Your task to perform on an android device: turn on notifications settings in the gmail app Image 0: 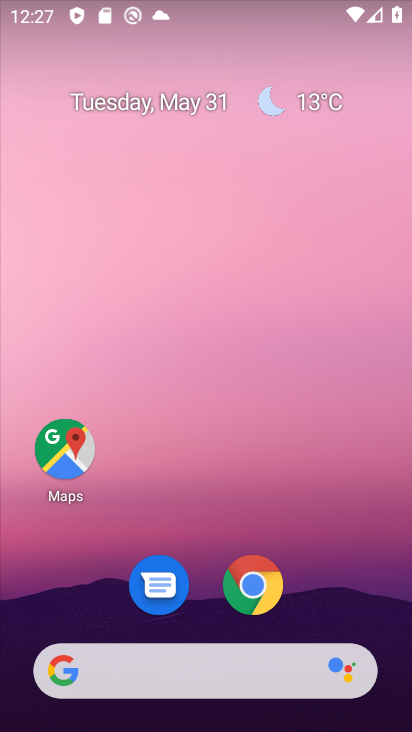
Step 0: drag from (246, 470) to (292, 19)
Your task to perform on an android device: turn on notifications settings in the gmail app Image 1: 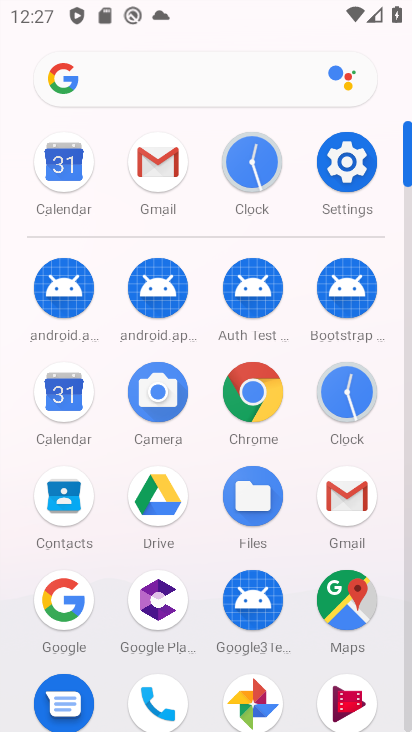
Step 1: click (169, 163)
Your task to perform on an android device: turn on notifications settings in the gmail app Image 2: 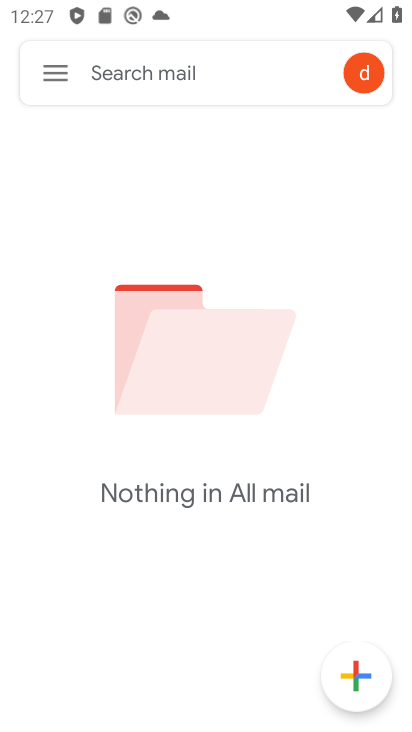
Step 2: click (56, 72)
Your task to perform on an android device: turn on notifications settings in the gmail app Image 3: 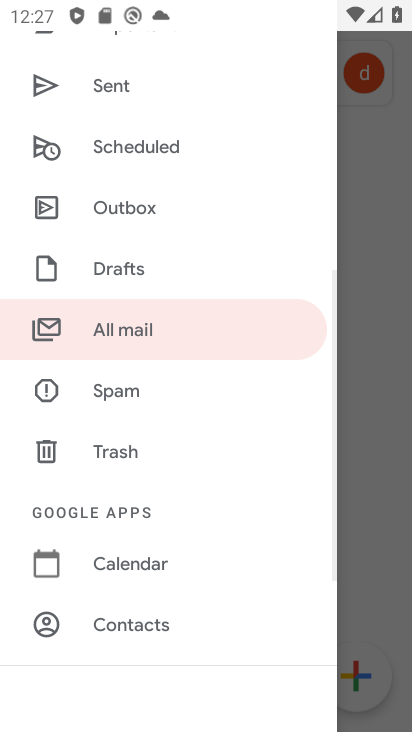
Step 3: drag from (150, 559) to (154, 394)
Your task to perform on an android device: turn on notifications settings in the gmail app Image 4: 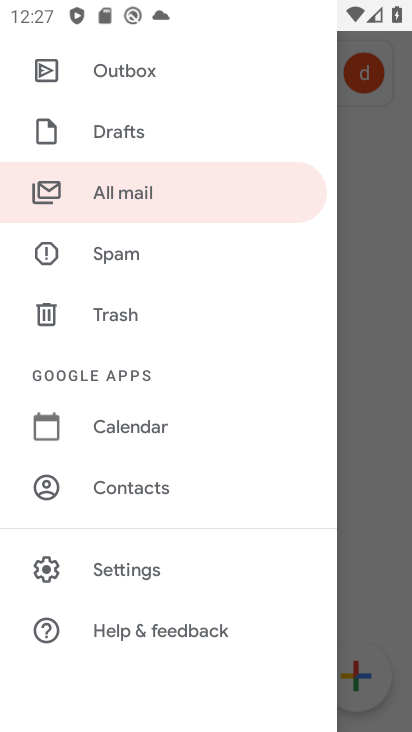
Step 4: click (140, 578)
Your task to perform on an android device: turn on notifications settings in the gmail app Image 5: 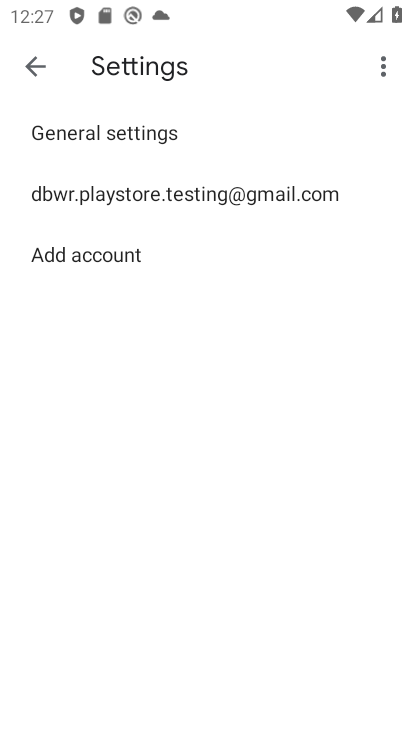
Step 5: click (164, 130)
Your task to perform on an android device: turn on notifications settings in the gmail app Image 6: 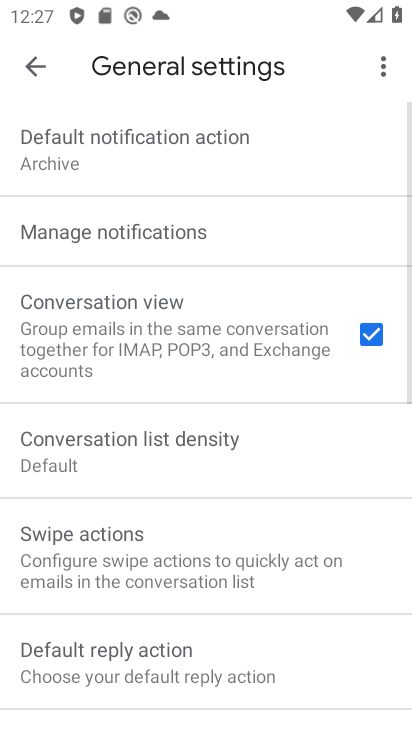
Step 6: click (240, 224)
Your task to perform on an android device: turn on notifications settings in the gmail app Image 7: 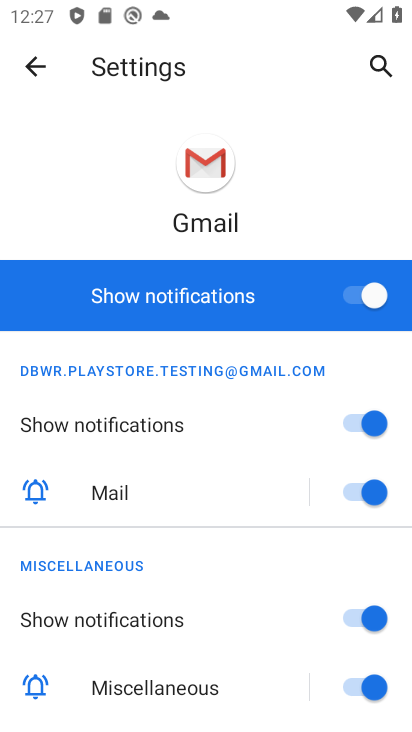
Step 7: task complete